Your task to perform on an android device: install app "Google News" Image 0: 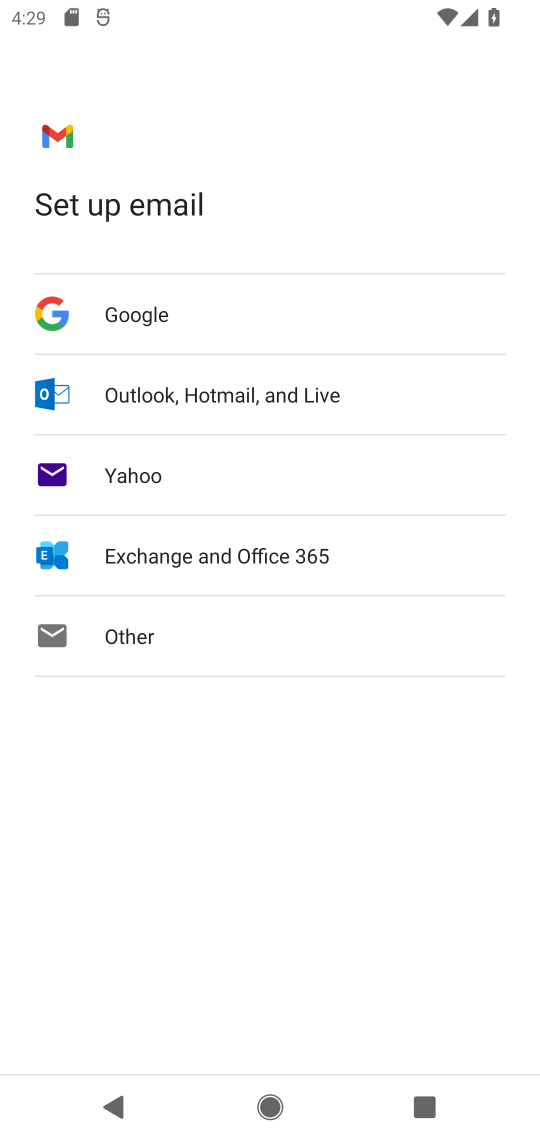
Step 0: press home button
Your task to perform on an android device: install app "Google News" Image 1: 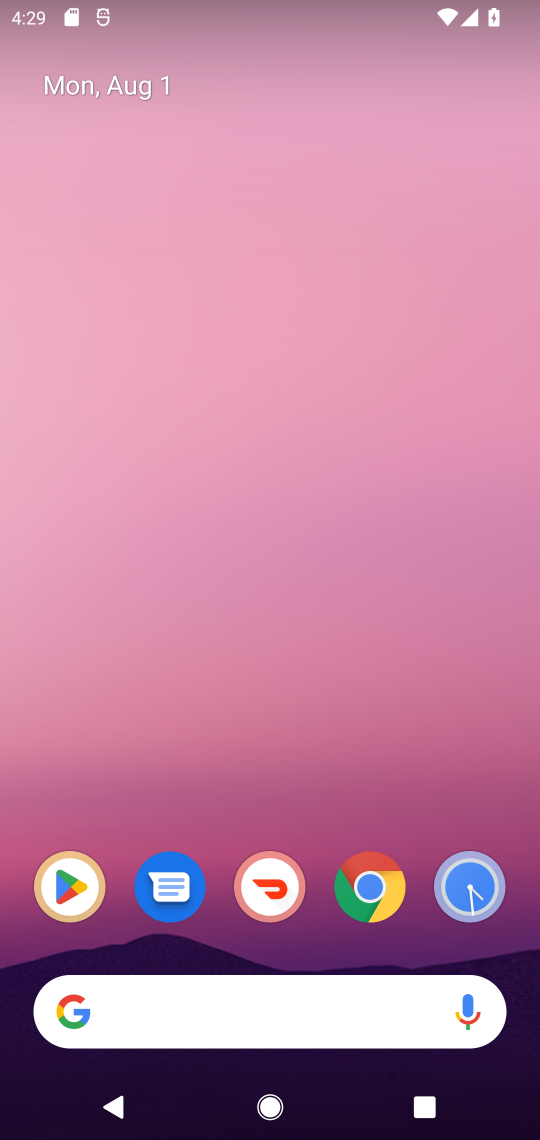
Step 1: click (81, 880)
Your task to perform on an android device: install app "Google News" Image 2: 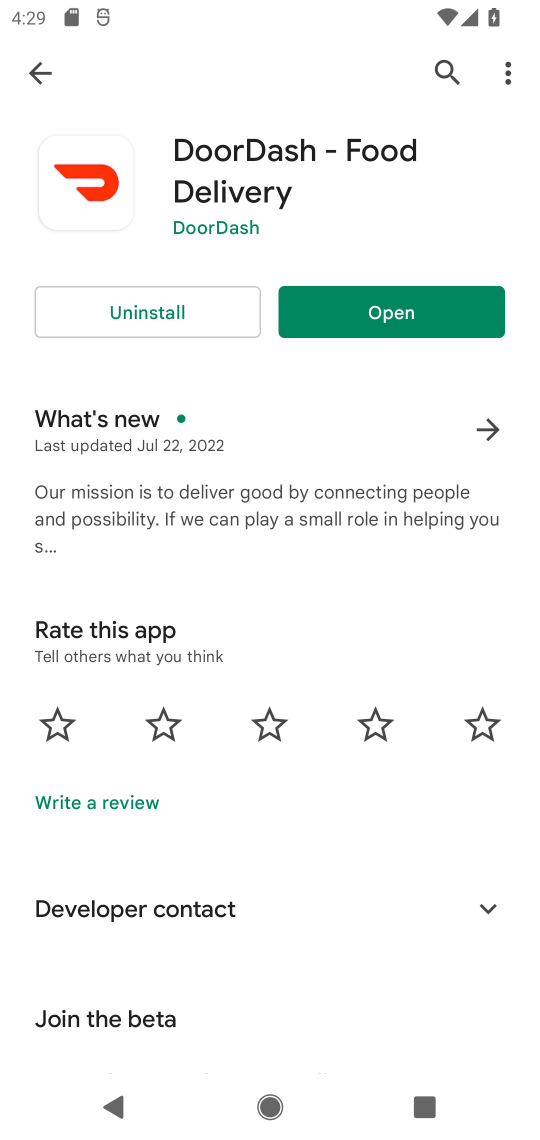
Step 2: click (45, 67)
Your task to perform on an android device: install app "Google News" Image 3: 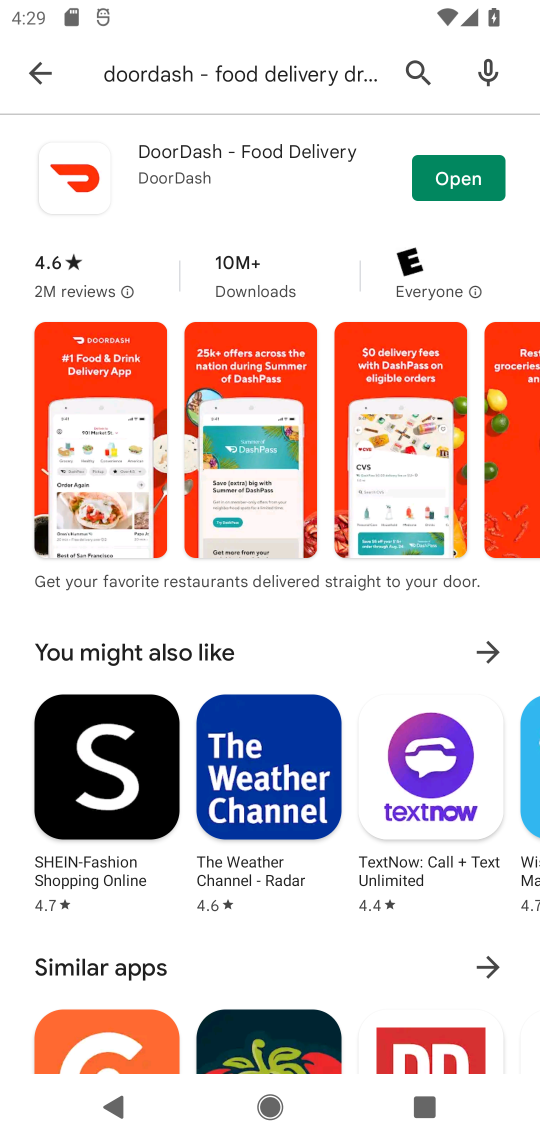
Step 3: click (46, 87)
Your task to perform on an android device: install app "Google News" Image 4: 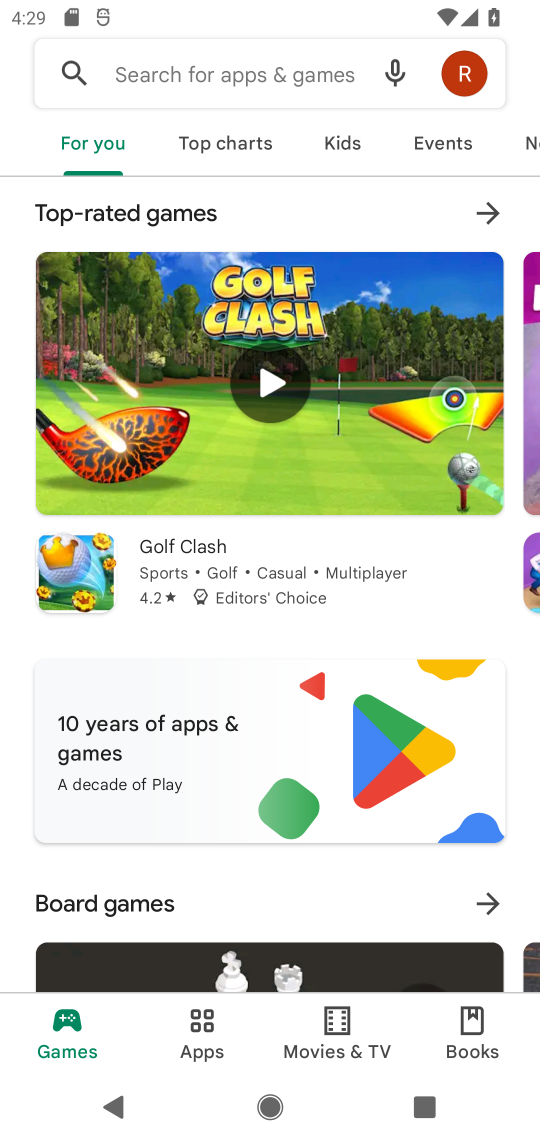
Step 4: click (193, 53)
Your task to perform on an android device: install app "Google News" Image 5: 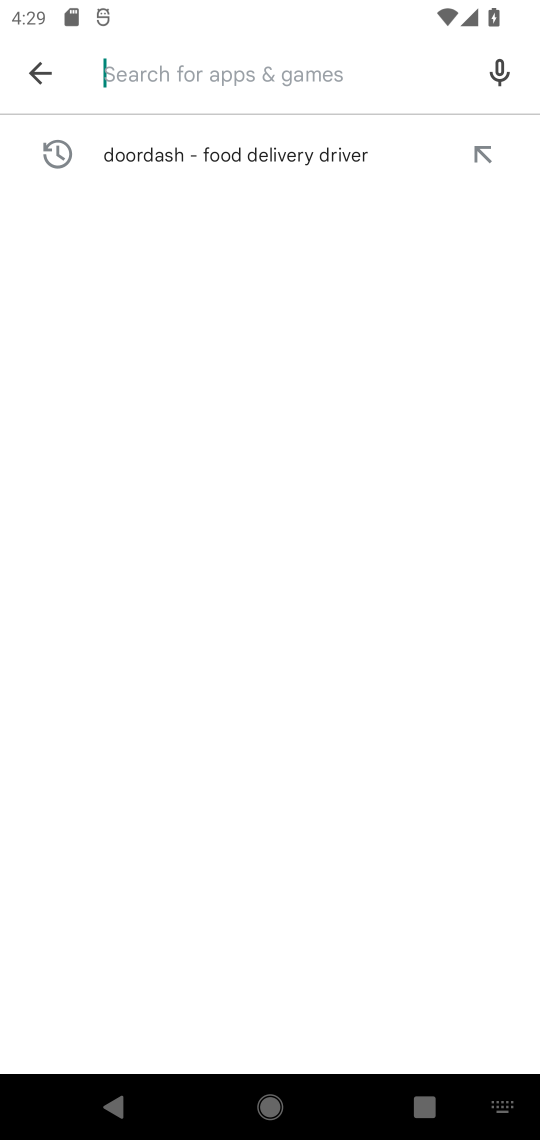
Step 5: type "Google News"
Your task to perform on an android device: install app "Google News" Image 6: 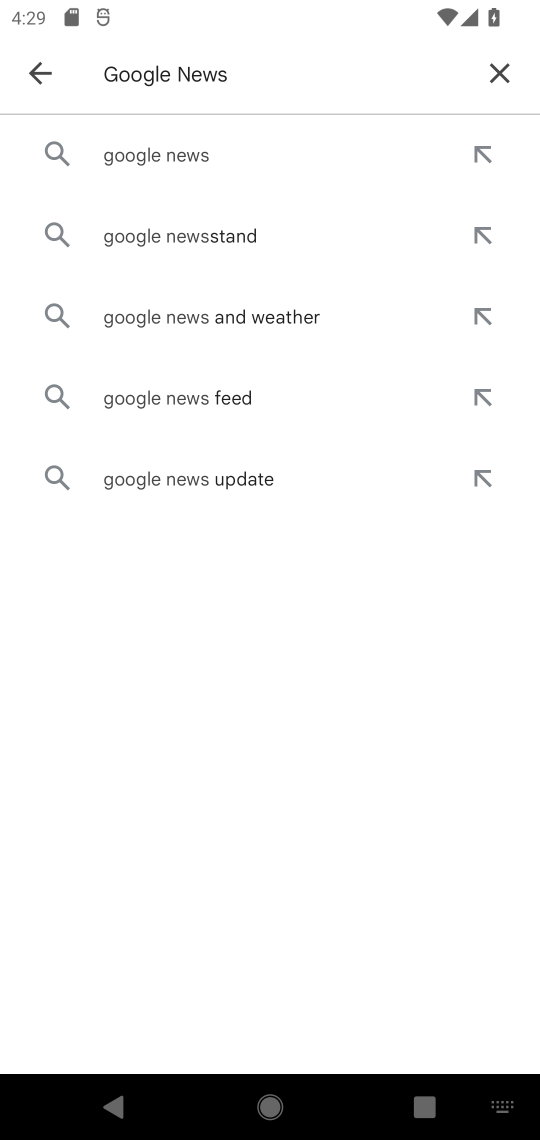
Step 6: click (136, 152)
Your task to perform on an android device: install app "Google News" Image 7: 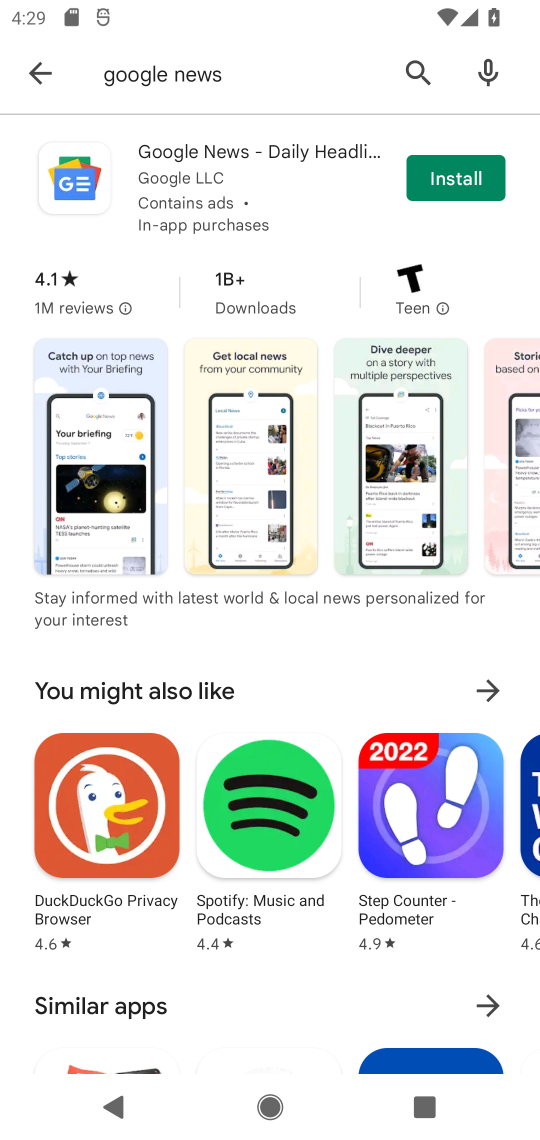
Step 7: click (438, 165)
Your task to perform on an android device: install app "Google News" Image 8: 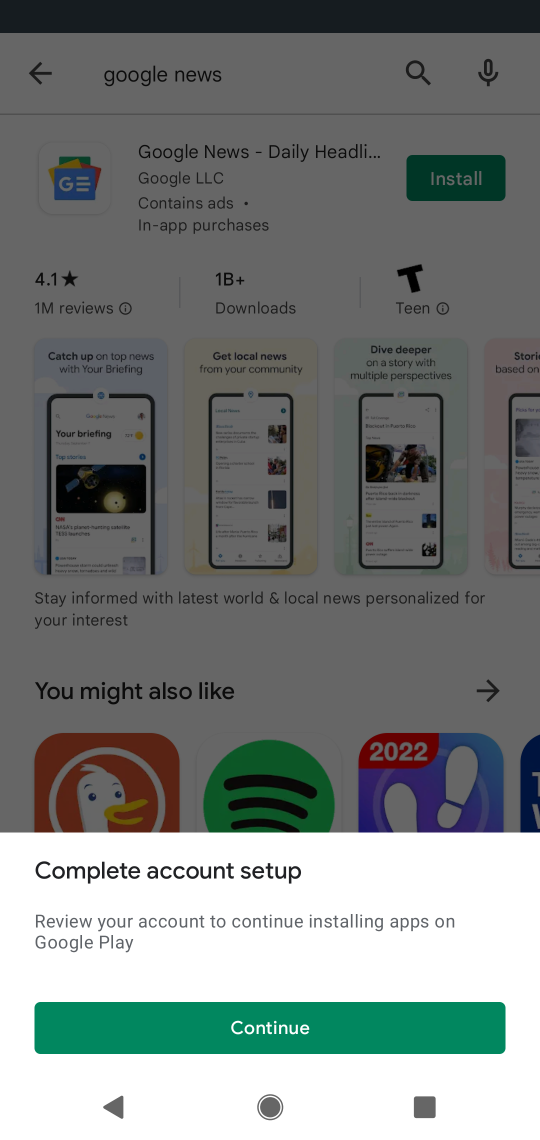
Step 8: click (166, 1012)
Your task to perform on an android device: install app "Google News" Image 9: 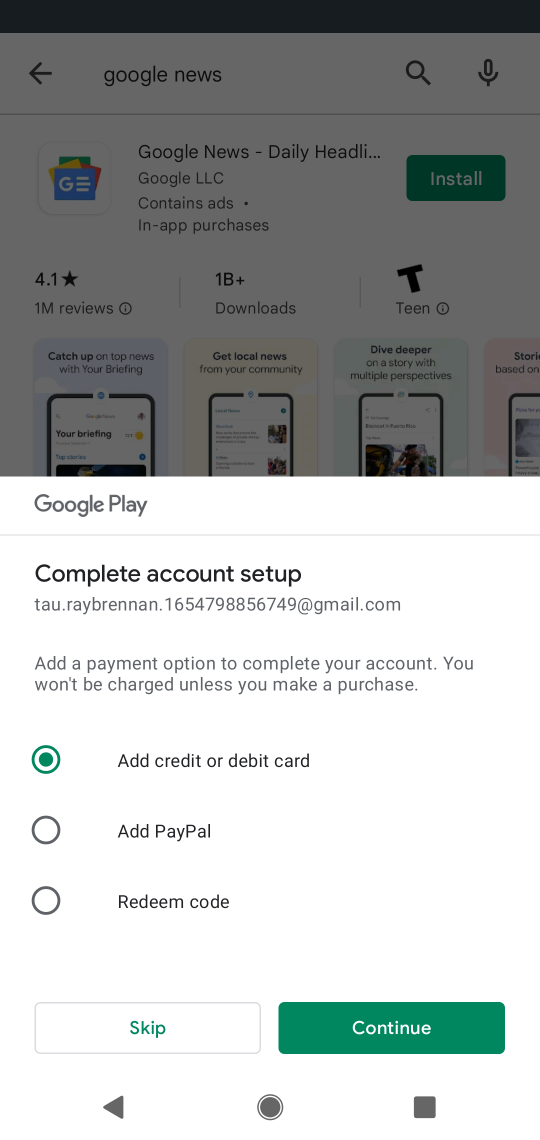
Step 9: click (166, 1012)
Your task to perform on an android device: install app "Google News" Image 10: 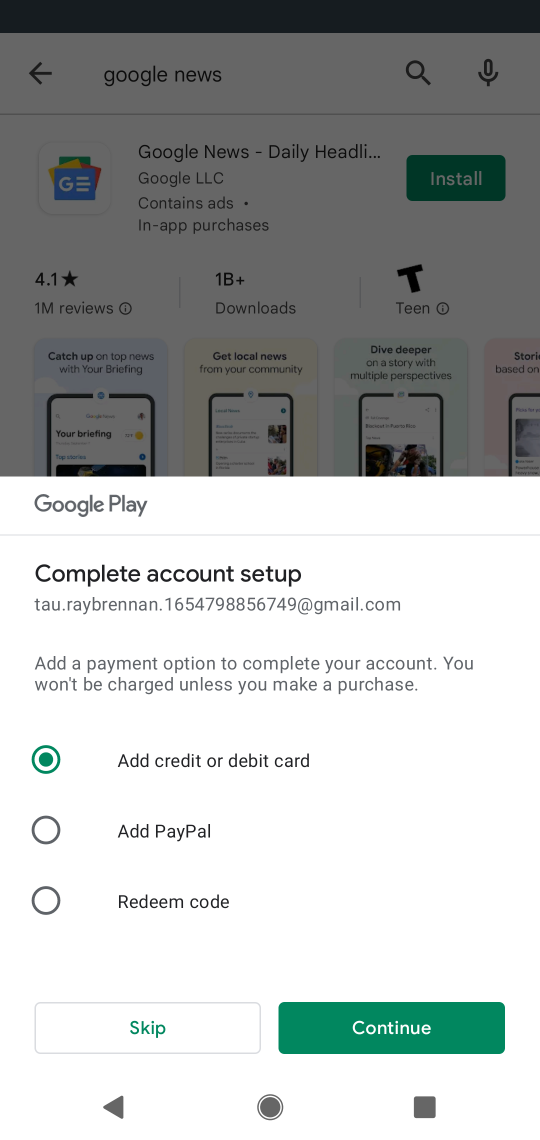
Step 10: click (166, 1012)
Your task to perform on an android device: install app "Google News" Image 11: 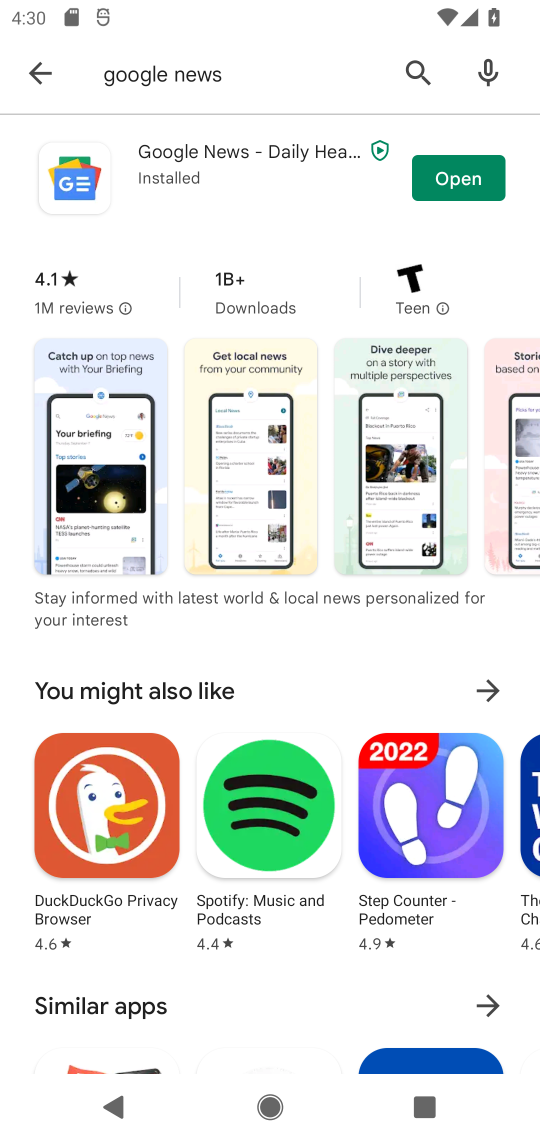
Step 11: click (440, 192)
Your task to perform on an android device: install app "Google News" Image 12: 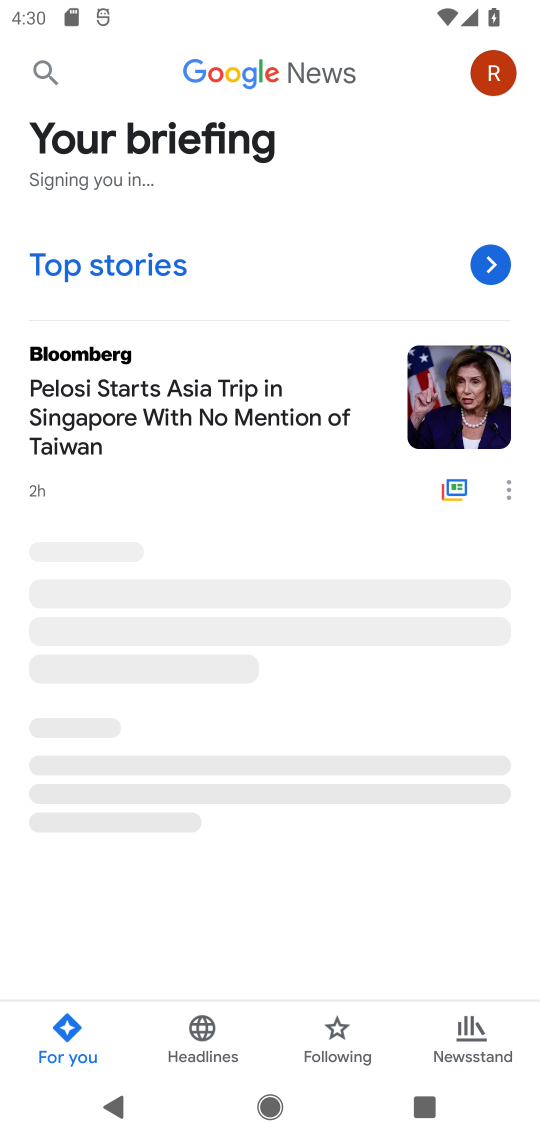
Step 12: task complete